Your task to perform on an android device: Show me popular games on the Play Store Image 0: 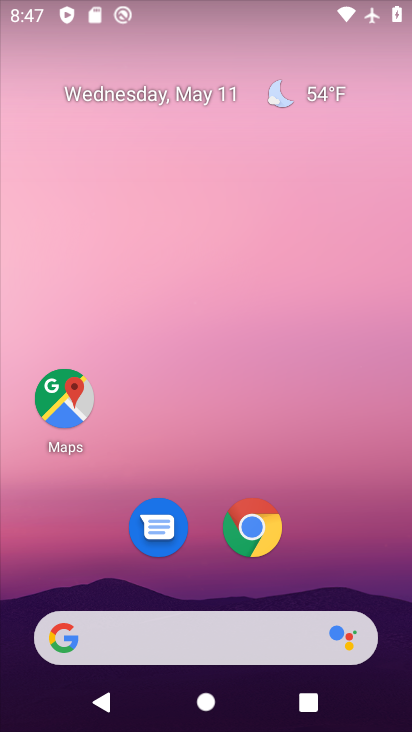
Step 0: drag from (312, 572) to (339, 168)
Your task to perform on an android device: Show me popular games on the Play Store Image 1: 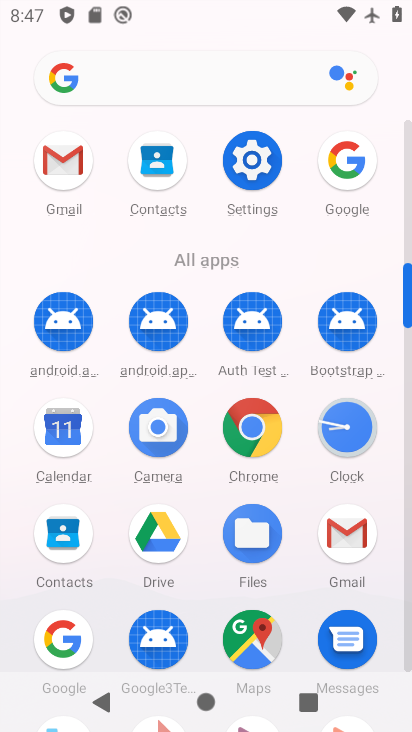
Step 1: drag from (194, 638) to (210, 231)
Your task to perform on an android device: Show me popular games on the Play Store Image 2: 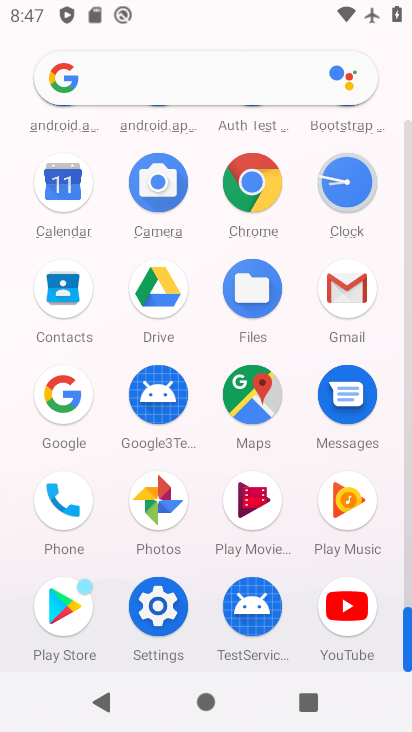
Step 2: click (79, 615)
Your task to perform on an android device: Show me popular games on the Play Store Image 3: 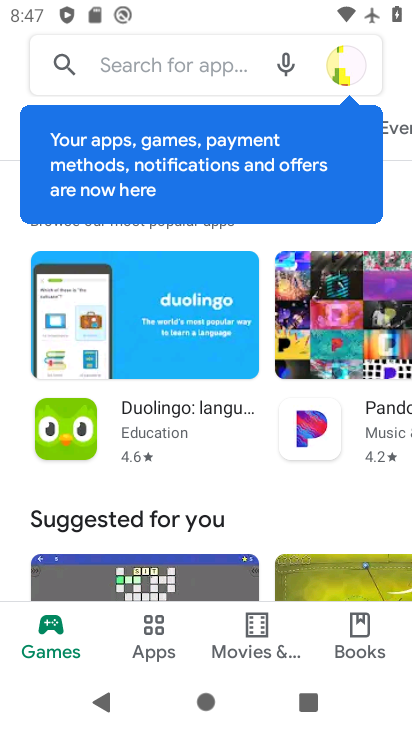
Step 3: drag from (237, 506) to (243, 215)
Your task to perform on an android device: Show me popular games on the Play Store Image 4: 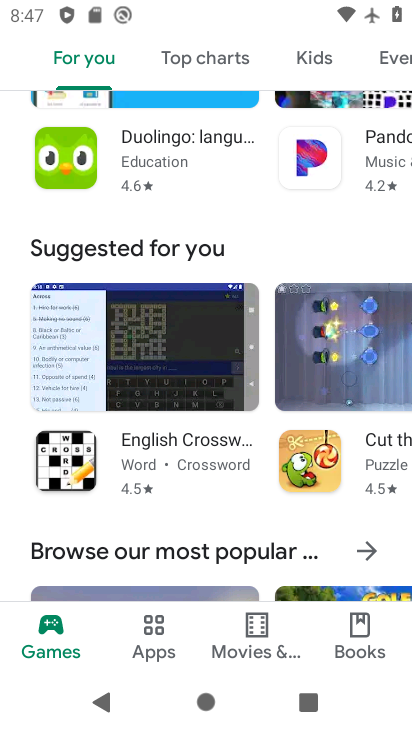
Step 4: click (269, 554)
Your task to perform on an android device: Show me popular games on the Play Store Image 5: 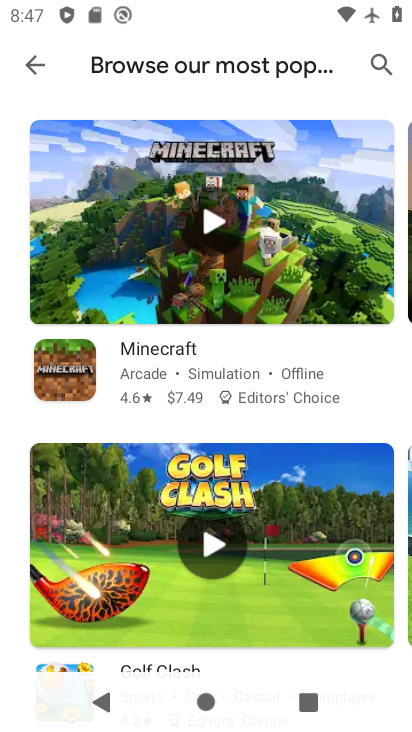
Step 5: task complete